Your task to perform on an android device: toggle translation in the chrome app Image 0: 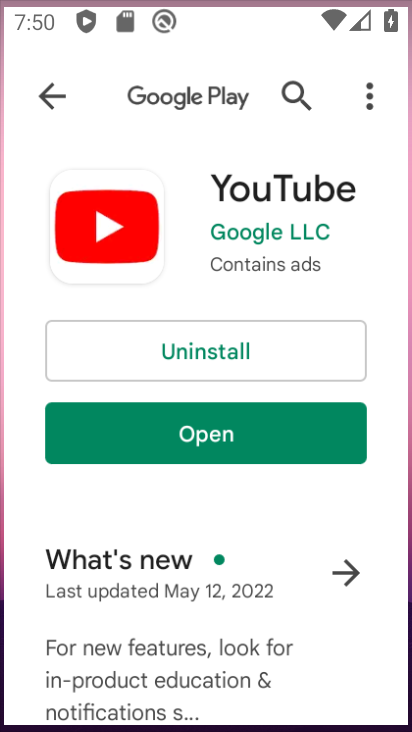
Step 0: drag from (190, 568) to (249, 27)
Your task to perform on an android device: toggle translation in the chrome app Image 1: 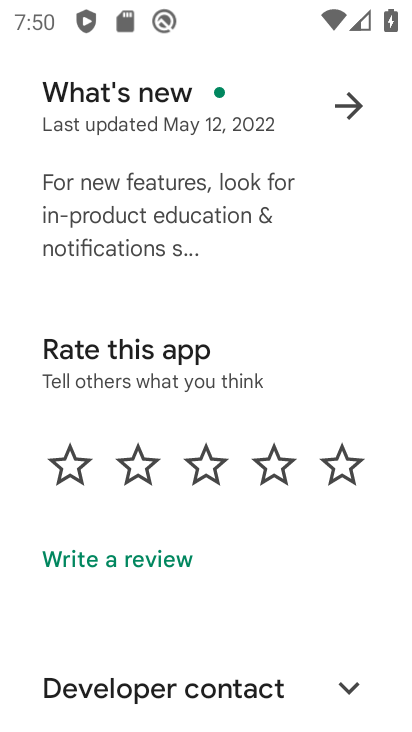
Step 1: press home button
Your task to perform on an android device: toggle translation in the chrome app Image 2: 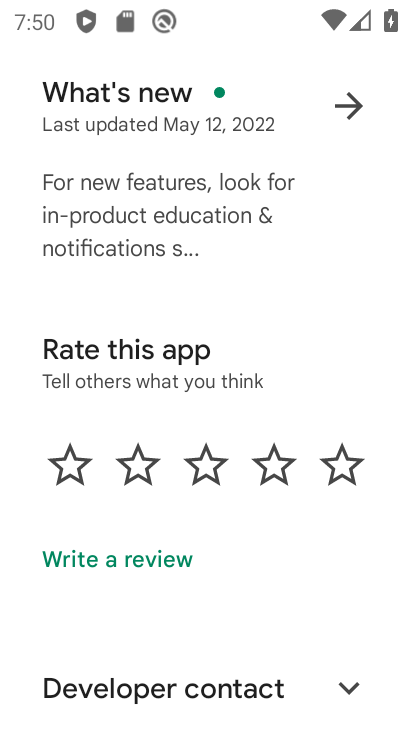
Step 2: drag from (249, 27) to (389, 312)
Your task to perform on an android device: toggle translation in the chrome app Image 3: 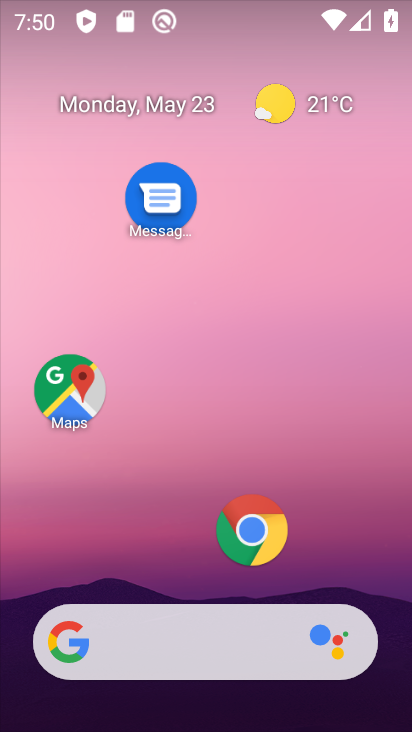
Step 3: click (247, 538)
Your task to perform on an android device: toggle translation in the chrome app Image 4: 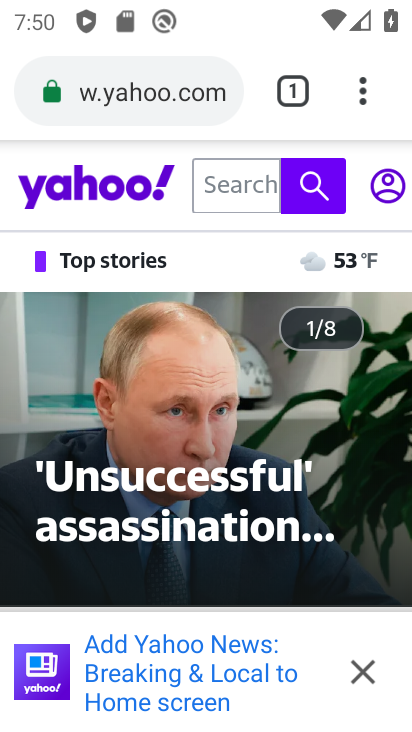
Step 4: click (375, 89)
Your task to perform on an android device: toggle translation in the chrome app Image 5: 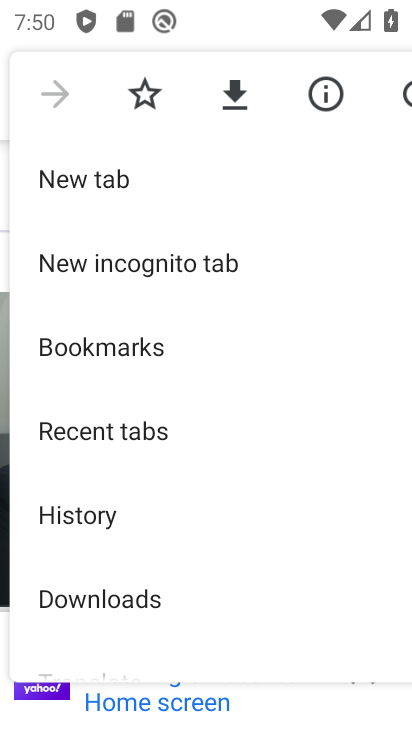
Step 5: drag from (112, 514) to (132, 154)
Your task to perform on an android device: toggle translation in the chrome app Image 6: 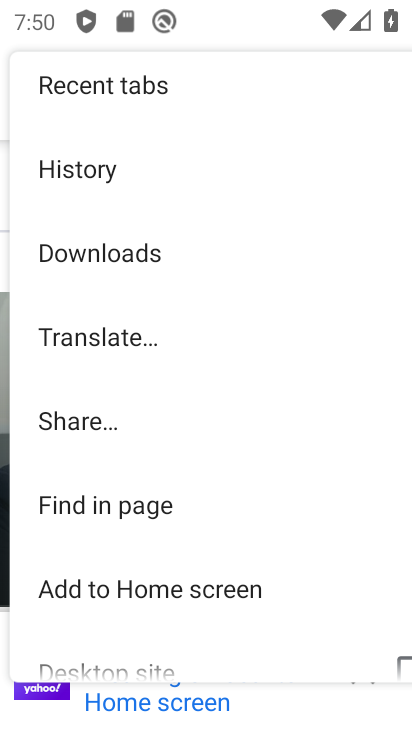
Step 6: drag from (191, 641) to (168, 338)
Your task to perform on an android device: toggle translation in the chrome app Image 7: 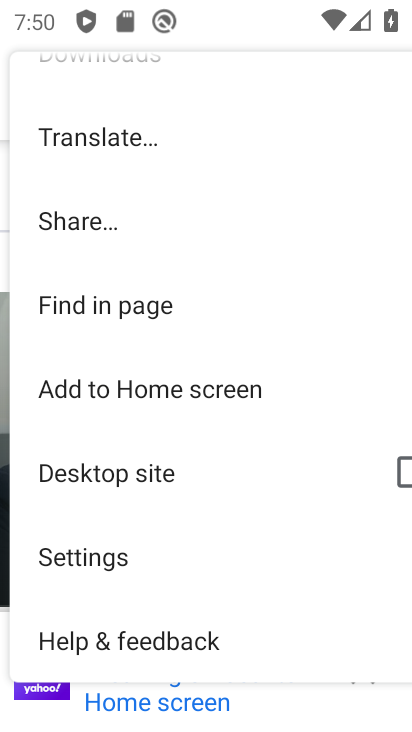
Step 7: click (122, 571)
Your task to perform on an android device: toggle translation in the chrome app Image 8: 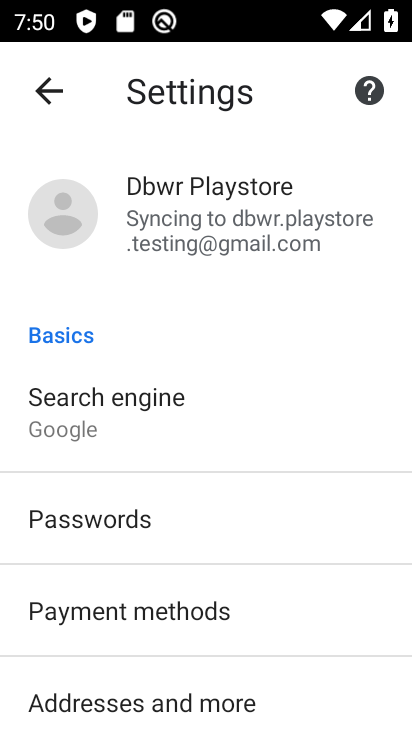
Step 8: drag from (122, 571) to (264, 10)
Your task to perform on an android device: toggle translation in the chrome app Image 9: 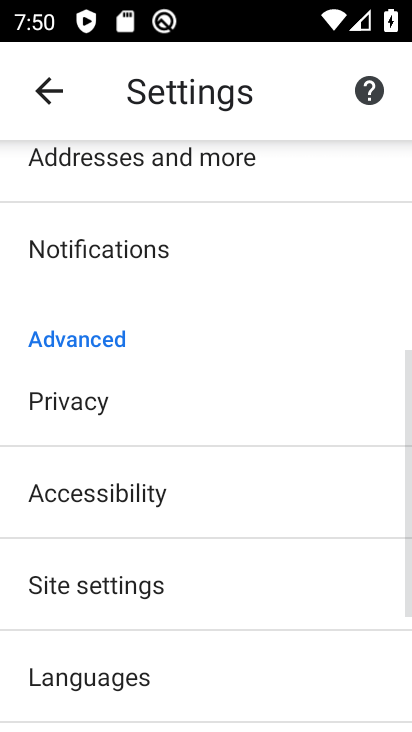
Step 9: click (107, 657)
Your task to perform on an android device: toggle translation in the chrome app Image 10: 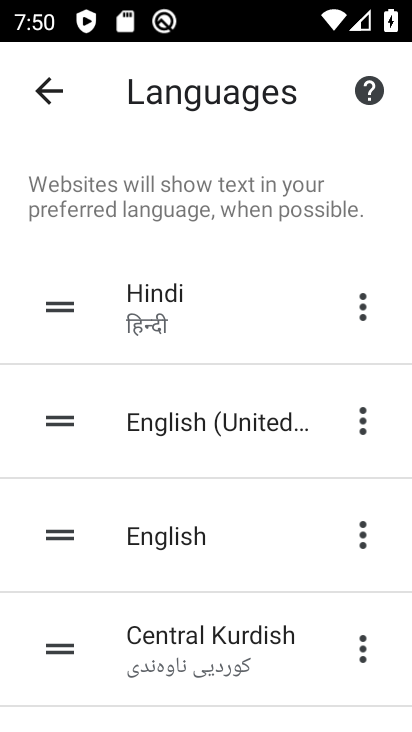
Step 10: drag from (165, 647) to (251, 129)
Your task to perform on an android device: toggle translation in the chrome app Image 11: 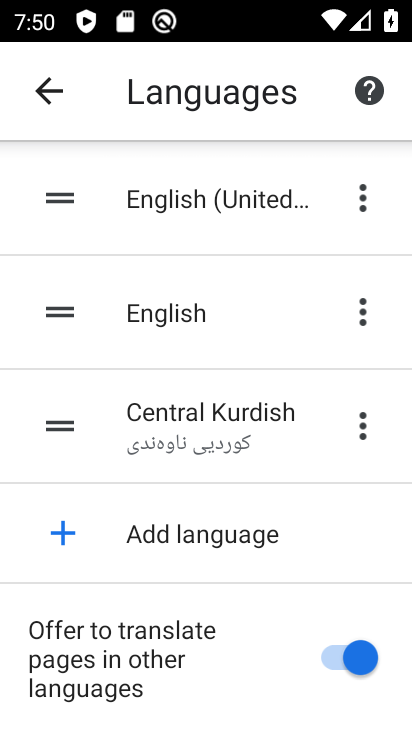
Step 11: click (336, 660)
Your task to perform on an android device: toggle translation in the chrome app Image 12: 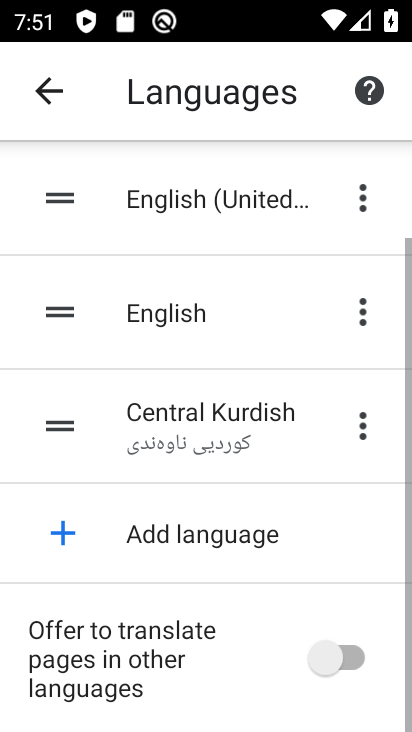
Step 12: click (336, 660)
Your task to perform on an android device: toggle translation in the chrome app Image 13: 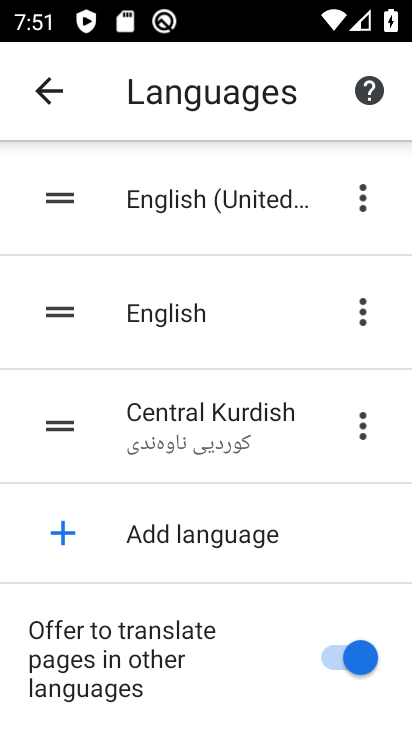
Step 13: task complete